Your task to perform on an android device: Search for Mexican restaurants on Maps Image 0: 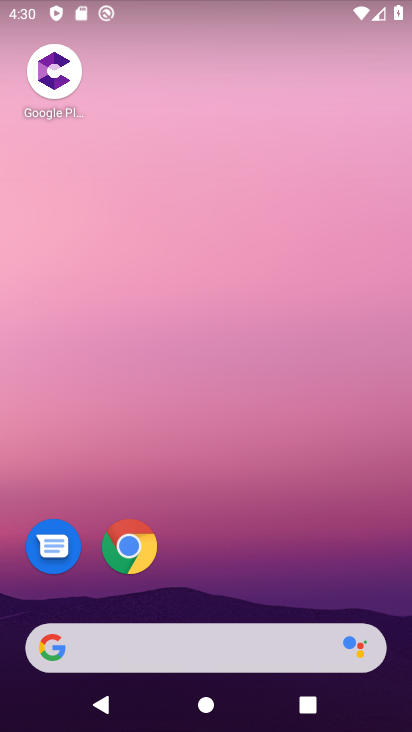
Step 0: click (320, 132)
Your task to perform on an android device: Search for Mexican restaurants on Maps Image 1: 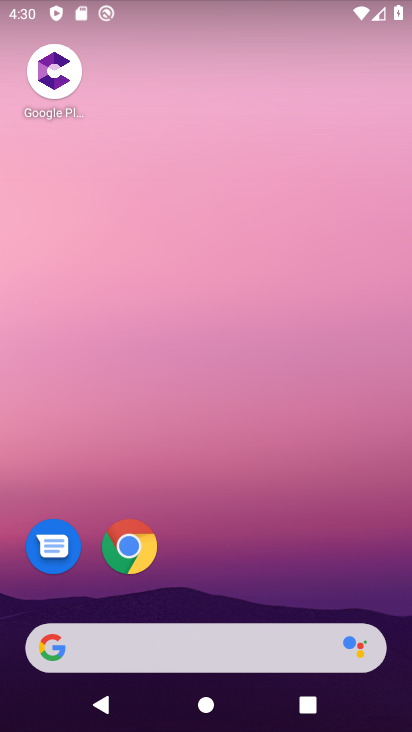
Step 1: drag from (181, 610) to (235, 0)
Your task to perform on an android device: Search for Mexican restaurants on Maps Image 2: 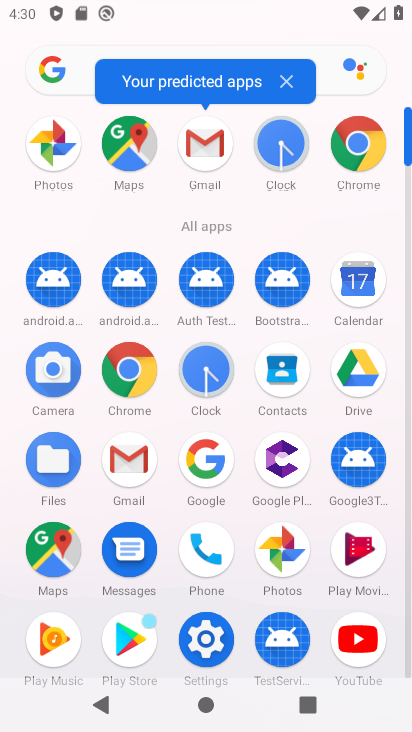
Step 2: click (131, 145)
Your task to perform on an android device: Search for Mexican restaurants on Maps Image 3: 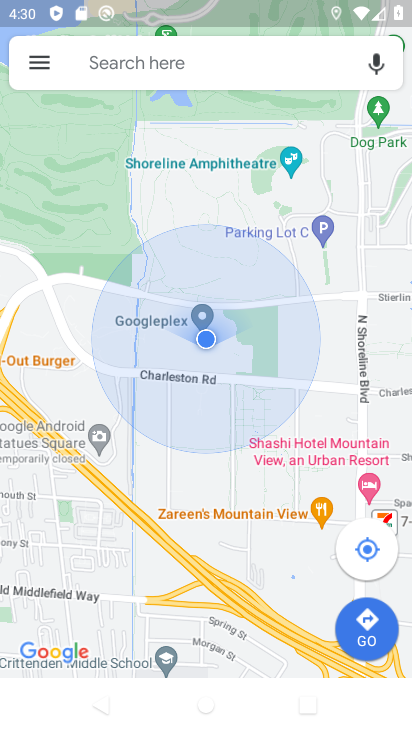
Step 3: click (220, 56)
Your task to perform on an android device: Search for Mexican restaurants on Maps Image 4: 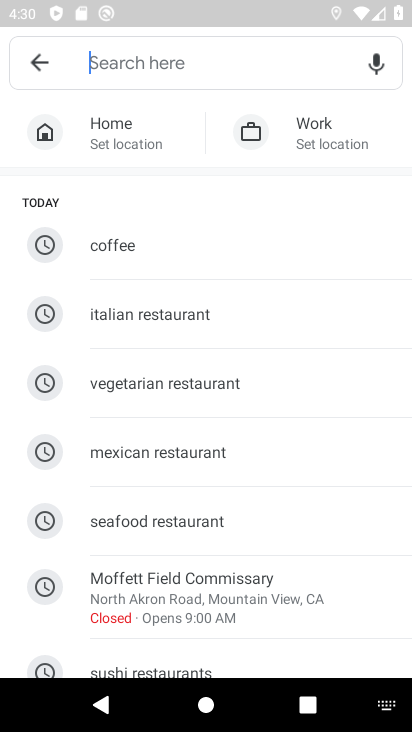
Step 4: click (141, 456)
Your task to perform on an android device: Search for Mexican restaurants on Maps Image 5: 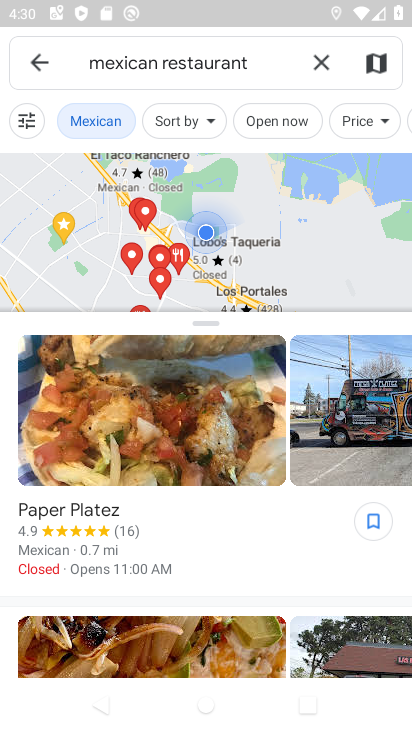
Step 5: task complete